Your task to perform on an android device: Clear the cart on costco. Image 0: 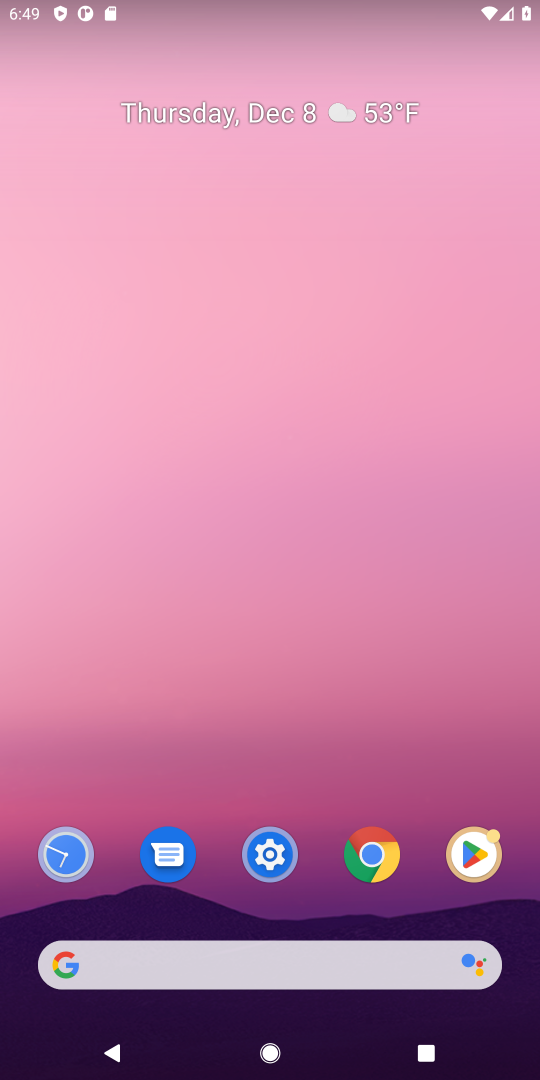
Step 0: press home button
Your task to perform on an android device: Clear the cart on costco. Image 1: 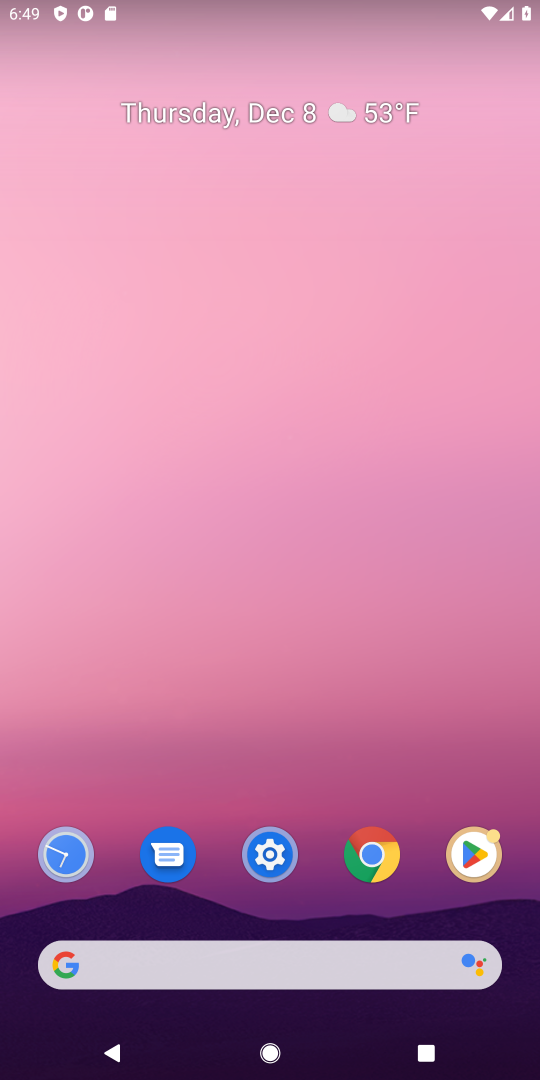
Step 1: click (91, 954)
Your task to perform on an android device: Clear the cart on costco. Image 2: 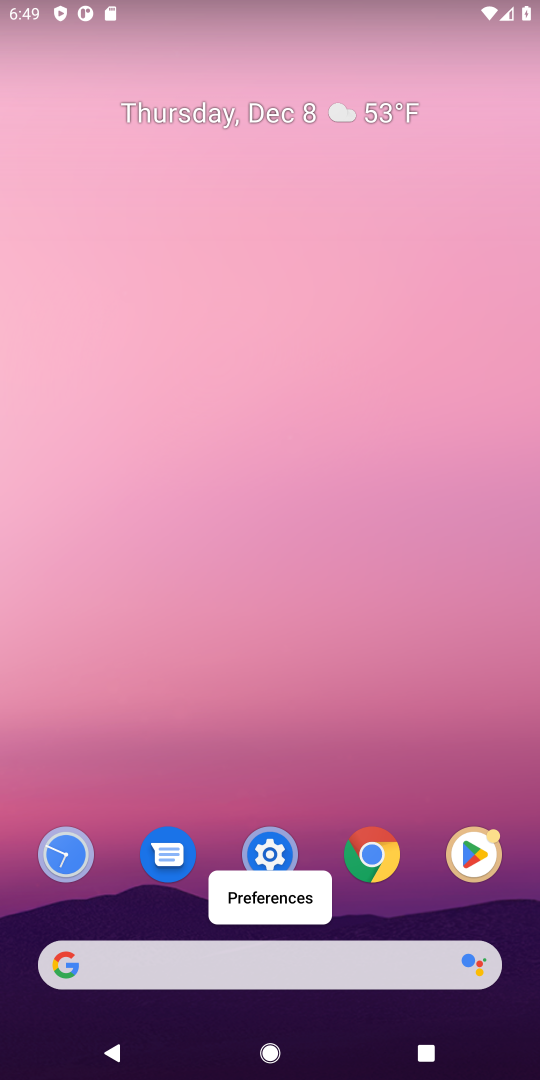
Step 2: click (93, 958)
Your task to perform on an android device: Clear the cart on costco. Image 3: 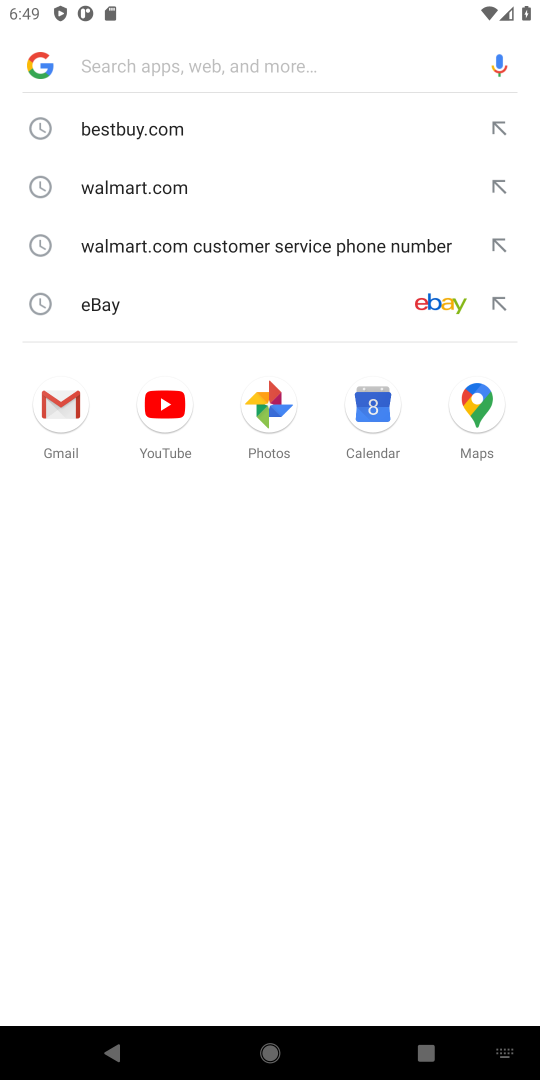
Step 3: press enter
Your task to perform on an android device: Clear the cart on costco. Image 4: 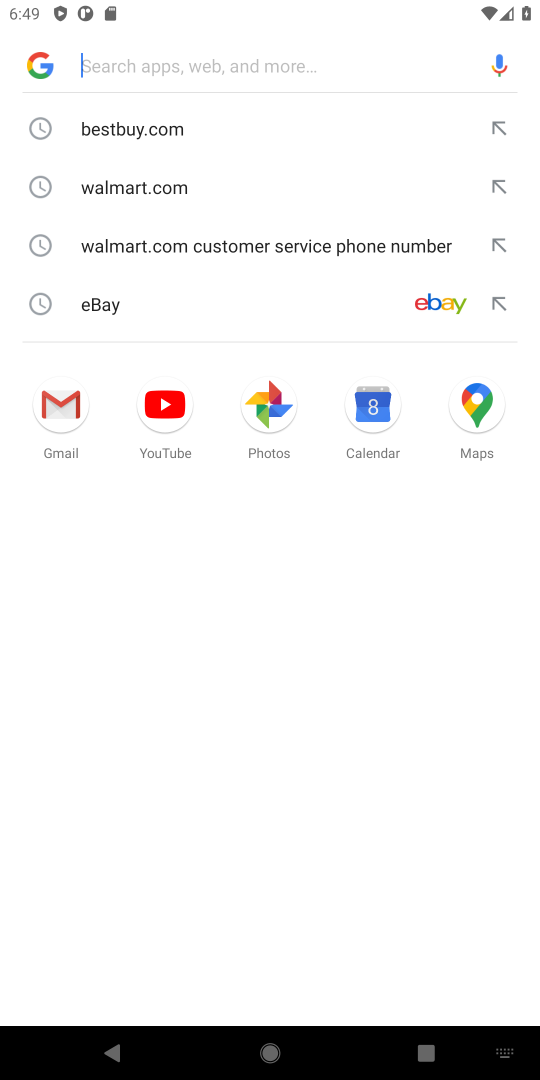
Step 4: type "costco"
Your task to perform on an android device: Clear the cart on costco. Image 5: 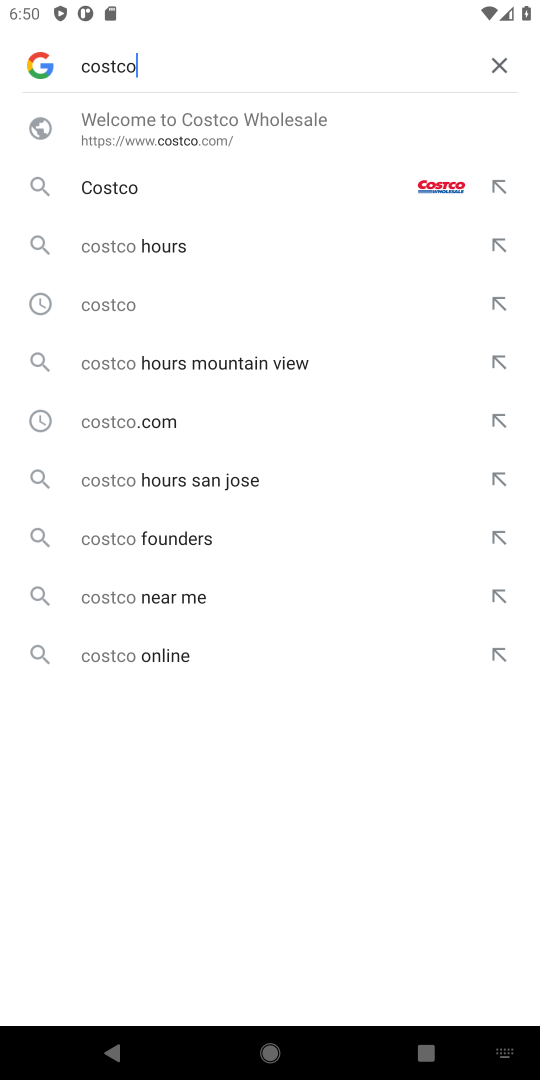
Step 5: press enter
Your task to perform on an android device: Clear the cart on costco. Image 6: 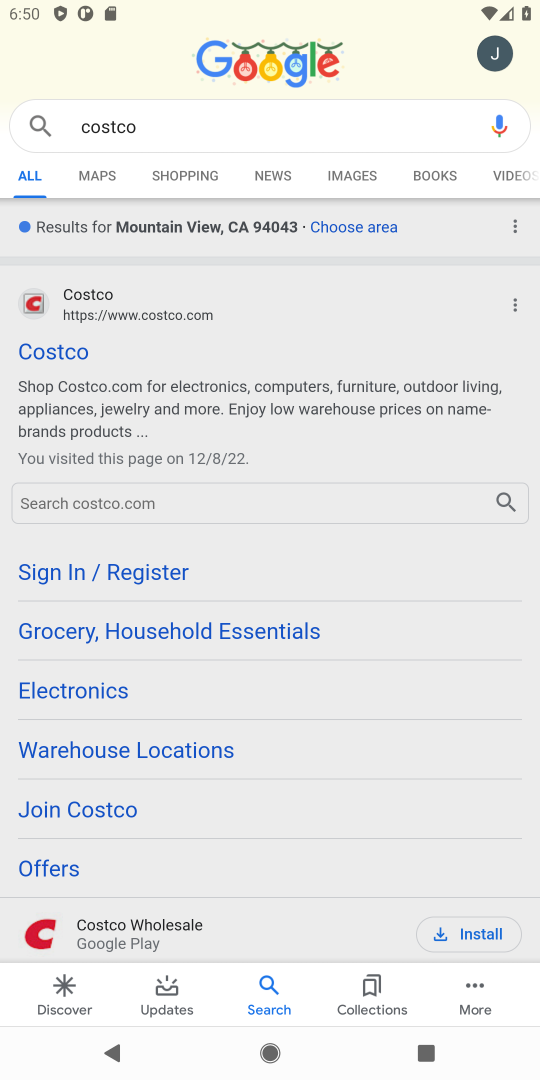
Step 6: click (37, 356)
Your task to perform on an android device: Clear the cart on costco. Image 7: 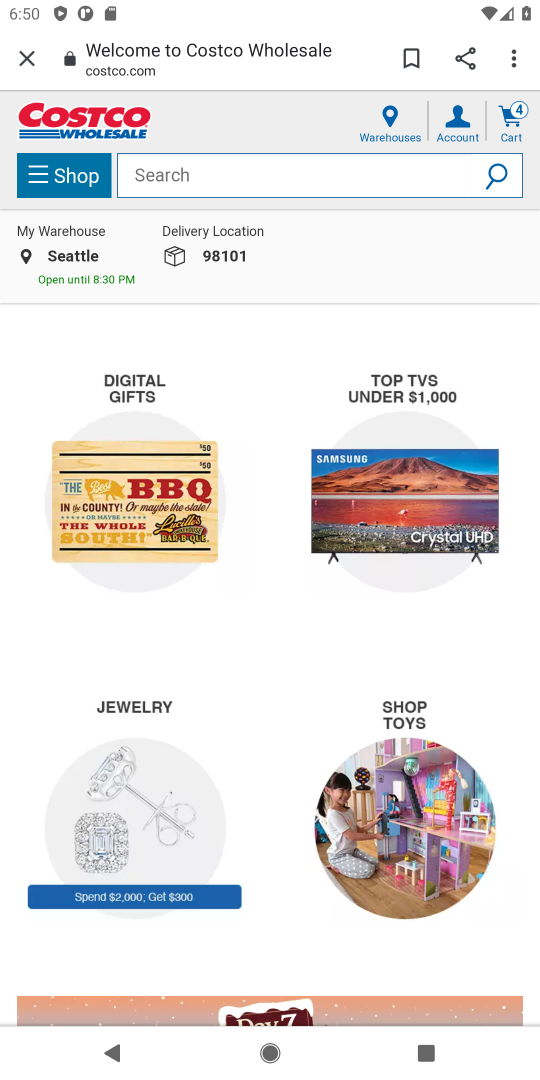
Step 7: click (510, 106)
Your task to perform on an android device: Clear the cart on costco. Image 8: 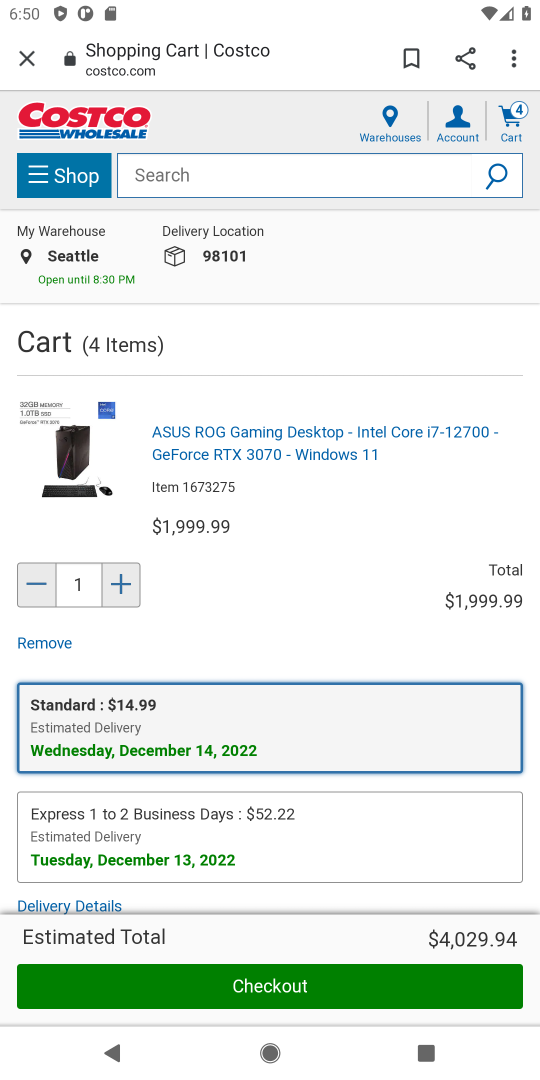
Step 8: click (32, 640)
Your task to perform on an android device: Clear the cart on costco. Image 9: 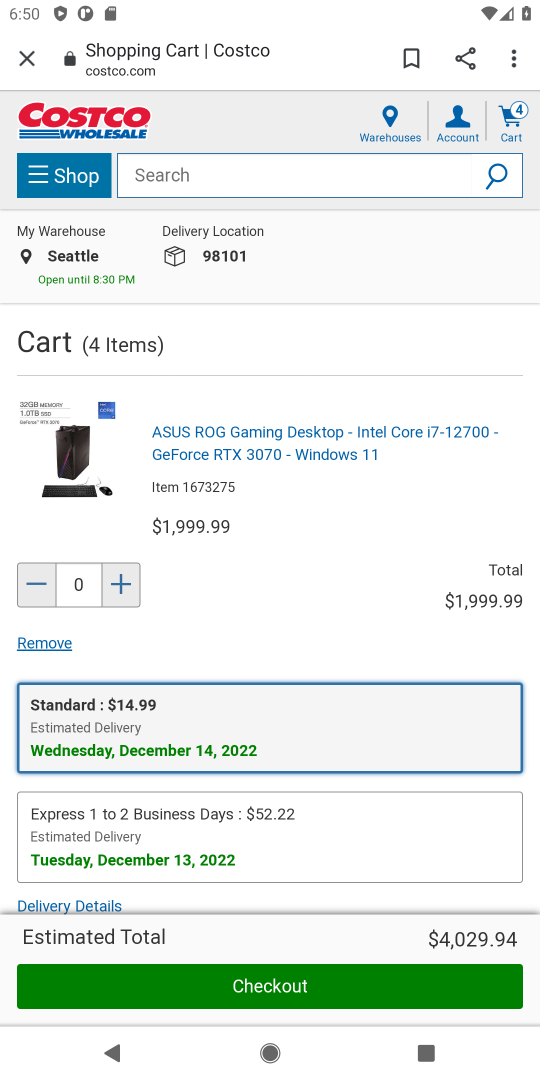
Step 9: drag from (247, 858) to (254, 452)
Your task to perform on an android device: Clear the cart on costco. Image 10: 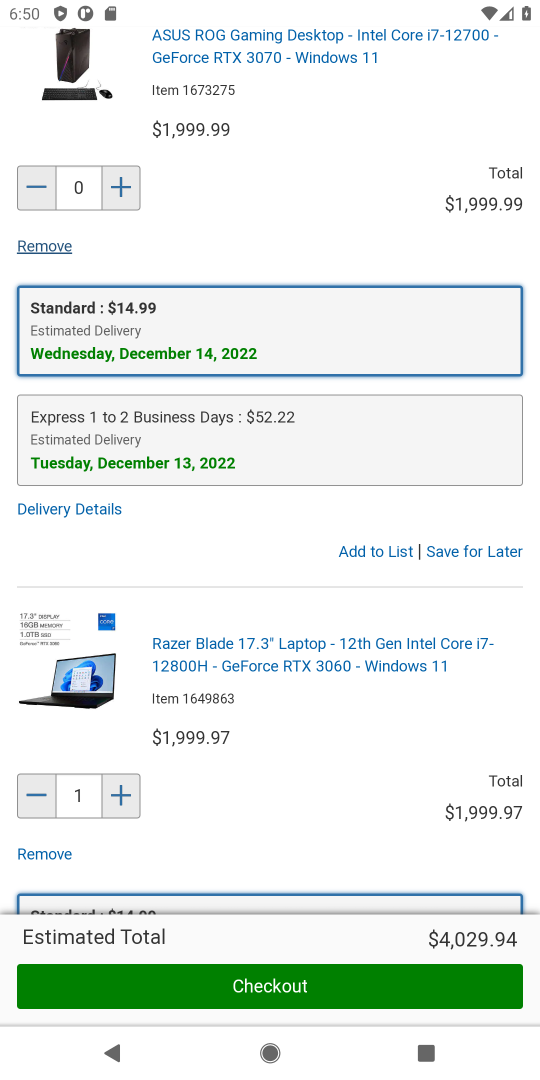
Step 10: click (46, 856)
Your task to perform on an android device: Clear the cart on costco. Image 11: 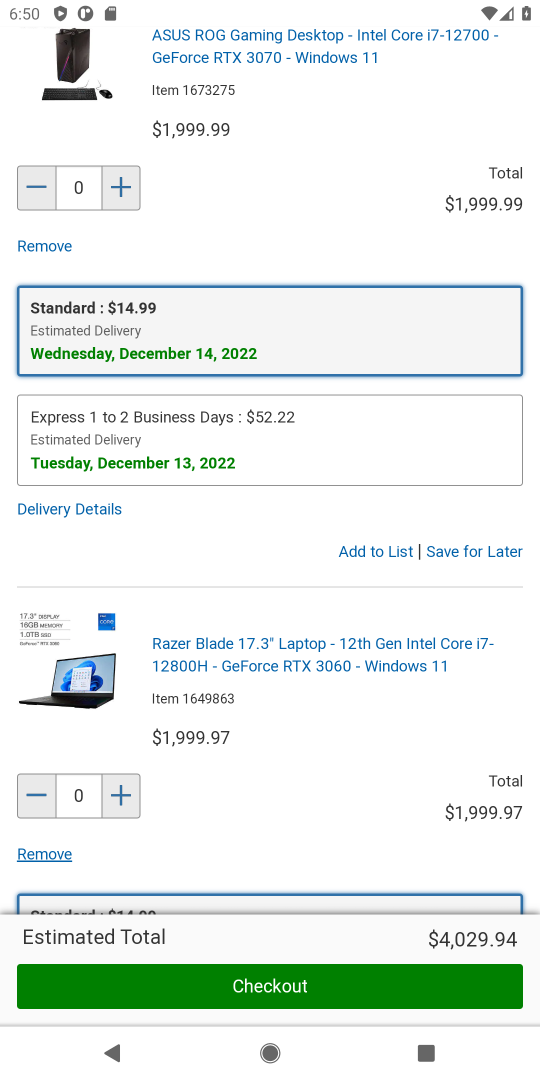
Step 11: task complete